Your task to perform on an android device: uninstall "Google Docs" Image 0: 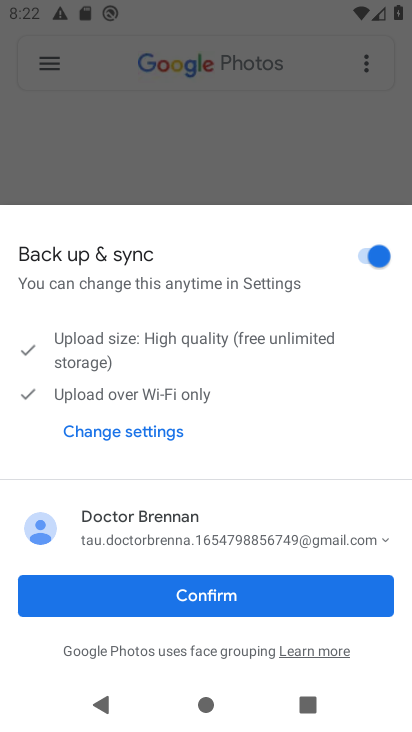
Step 0: press home button
Your task to perform on an android device: uninstall "Google Docs" Image 1: 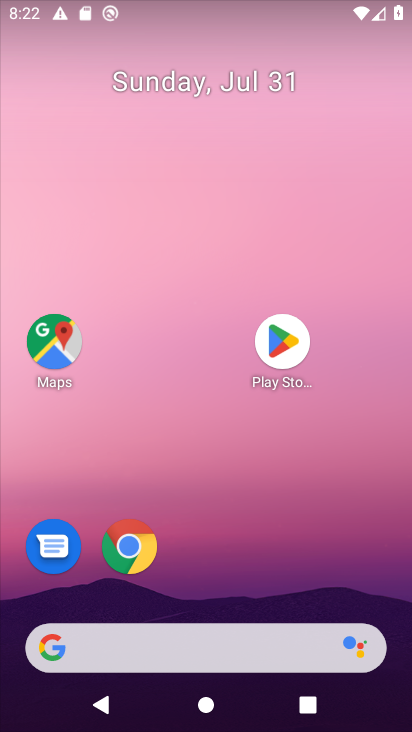
Step 1: click (265, 344)
Your task to perform on an android device: uninstall "Google Docs" Image 2: 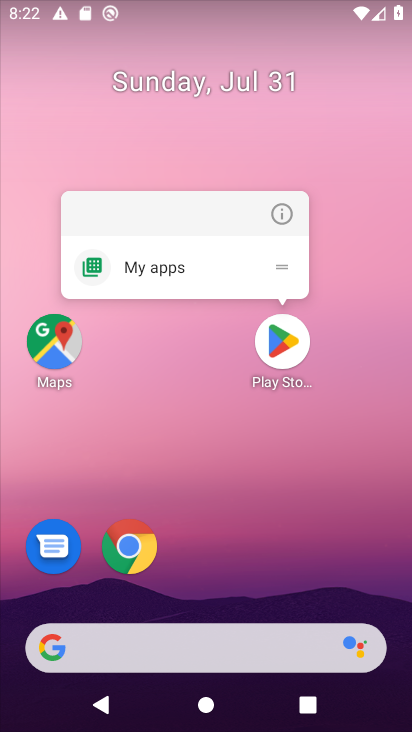
Step 2: click (277, 340)
Your task to perform on an android device: uninstall "Google Docs" Image 3: 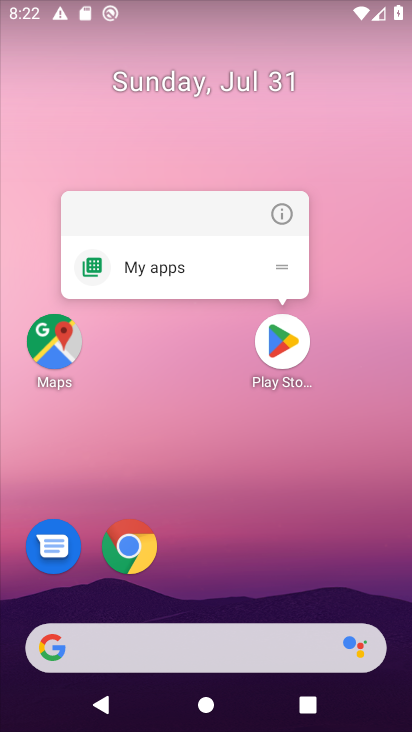
Step 3: click (295, 340)
Your task to perform on an android device: uninstall "Google Docs" Image 4: 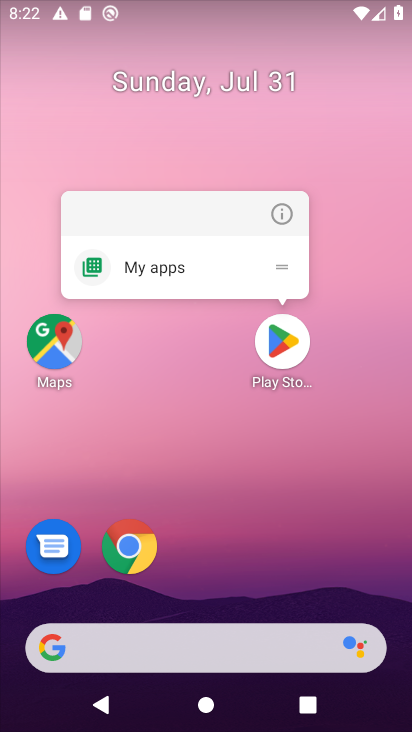
Step 4: click (295, 341)
Your task to perform on an android device: uninstall "Google Docs" Image 5: 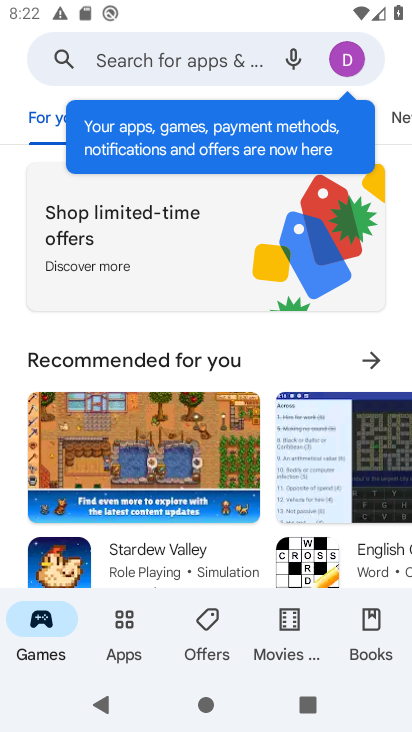
Step 5: click (188, 58)
Your task to perform on an android device: uninstall "Google Docs" Image 6: 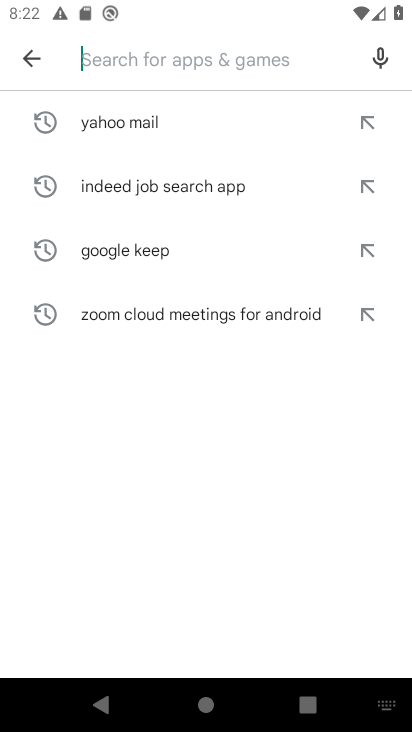
Step 6: type "Google Docs"
Your task to perform on an android device: uninstall "Google Docs" Image 7: 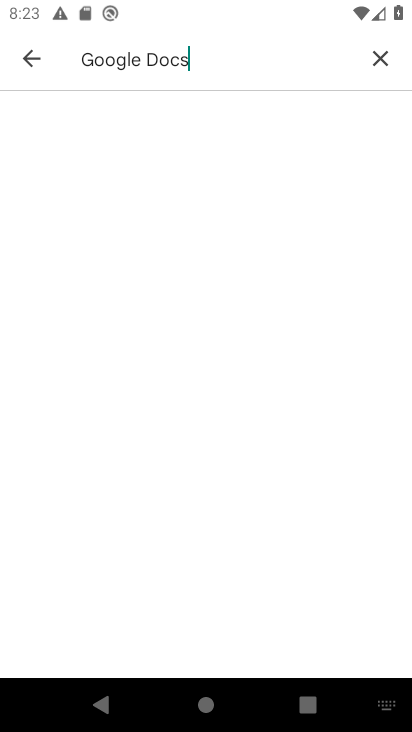
Step 7: click (375, 58)
Your task to perform on an android device: uninstall "Google Docs" Image 8: 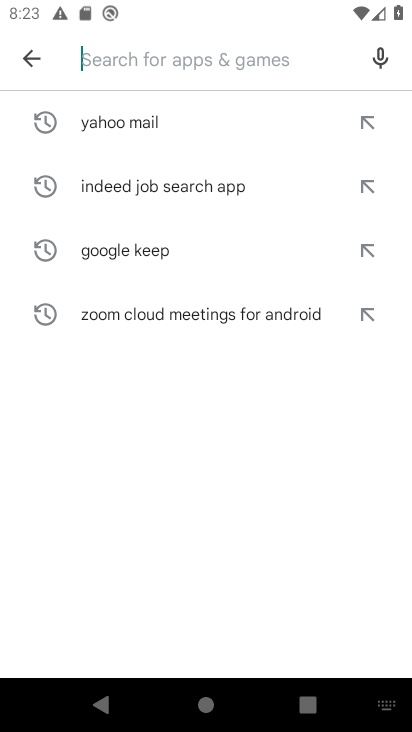
Step 8: type "Google Docs"
Your task to perform on an android device: uninstall "Google Docs" Image 9: 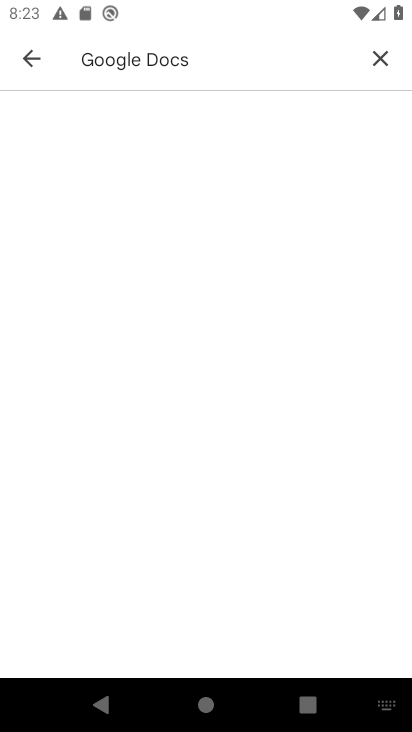
Step 9: click (127, 124)
Your task to perform on an android device: uninstall "Google Docs" Image 10: 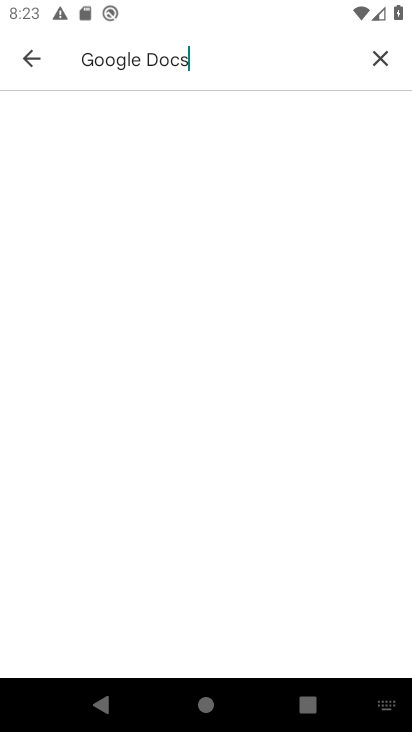
Step 10: click (32, 54)
Your task to perform on an android device: uninstall "Google Docs" Image 11: 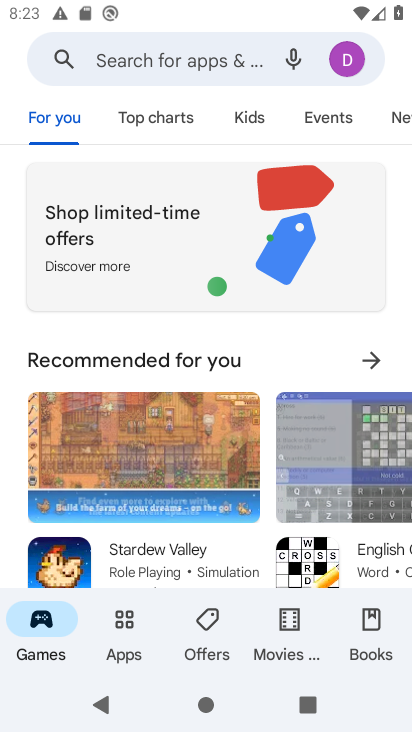
Step 11: task complete